Your task to perform on an android device: See recent photos Image 0: 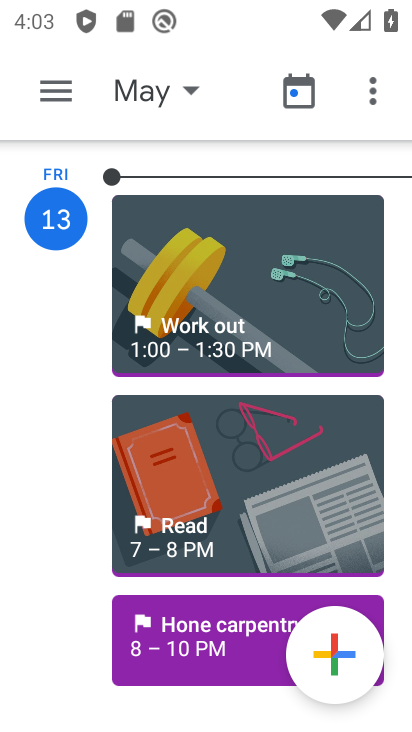
Step 0: press home button
Your task to perform on an android device: See recent photos Image 1: 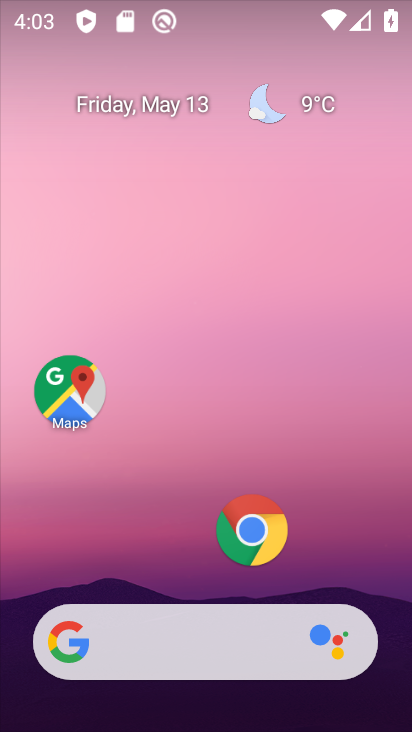
Step 1: drag from (204, 579) to (218, 66)
Your task to perform on an android device: See recent photos Image 2: 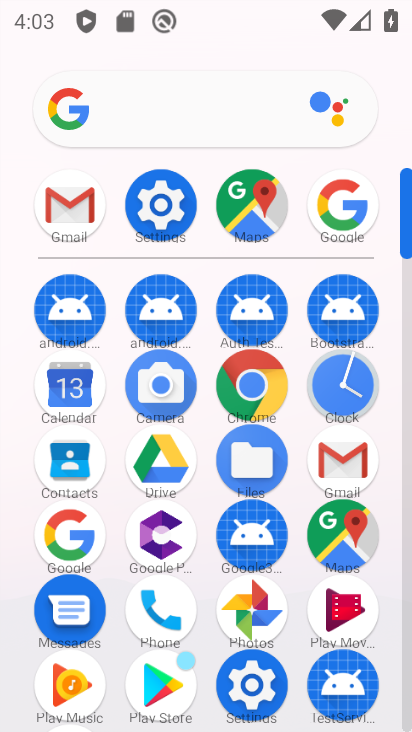
Step 2: click (247, 605)
Your task to perform on an android device: See recent photos Image 3: 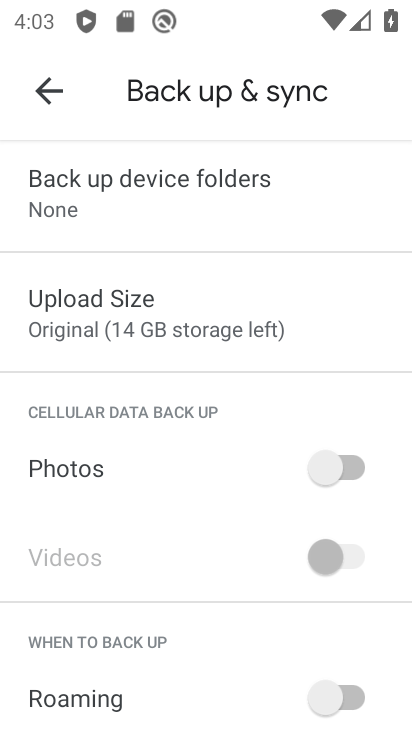
Step 3: click (61, 88)
Your task to perform on an android device: See recent photos Image 4: 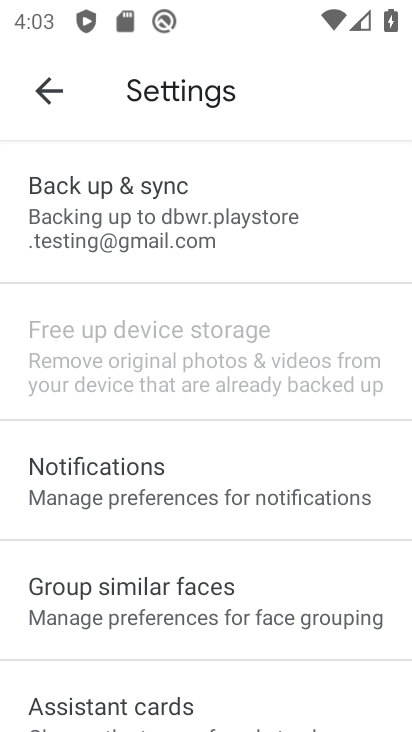
Step 4: click (52, 97)
Your task to perform on an android device: See recent photos Image 5: 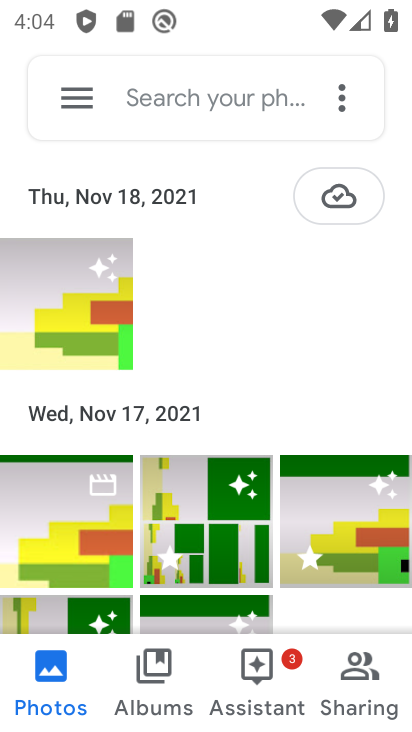
Step 5: task complete